Your task to perform on an android device: View the shopping cart on newegg.com. Add amazon basics triple a to the cart on newegg.com Image 0: 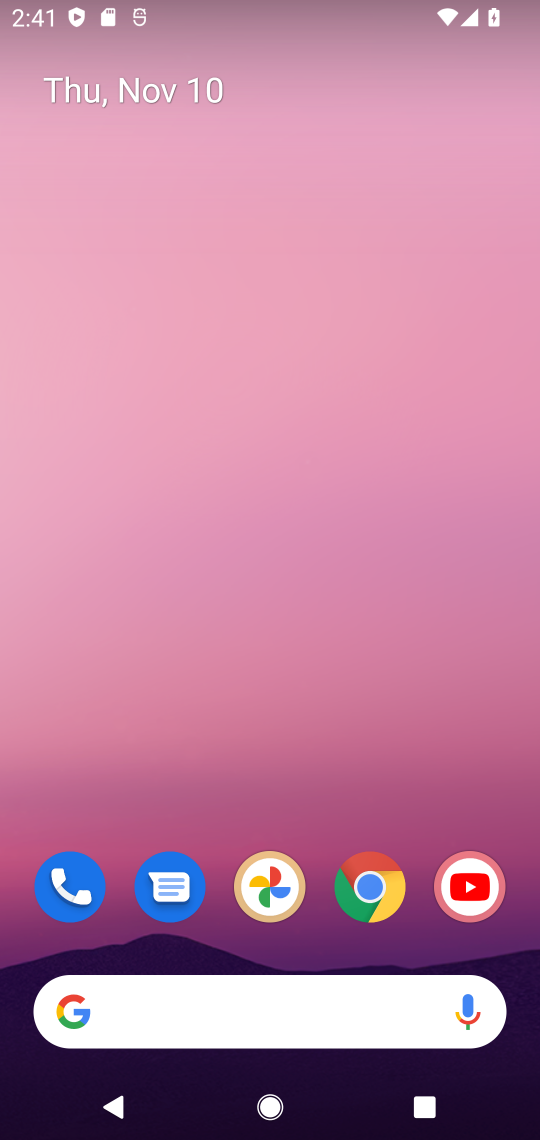
Step 0: drag from (314, 955) to (280, 90)
Your task to perform on an android device: View the shopping cart on newegg.com. Add amazon basics triple a to the cart on newegg.com Image 1: 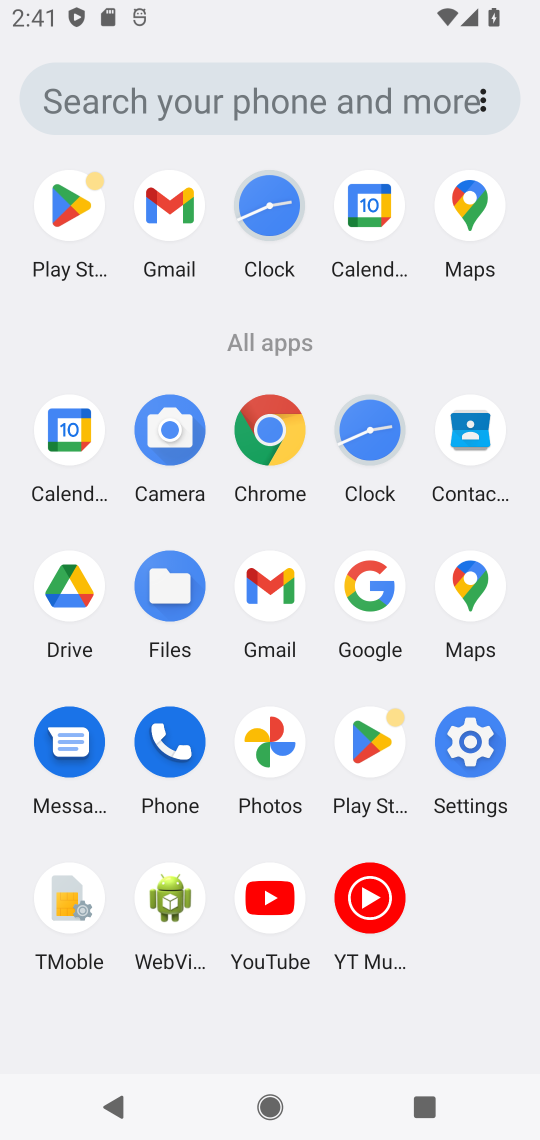
Step 1: click (276, 430)
Your task to perform on an android device: View the shopping cart on newegg.com. Add amazon basics triple a to the cart on newegg.com Image 2: 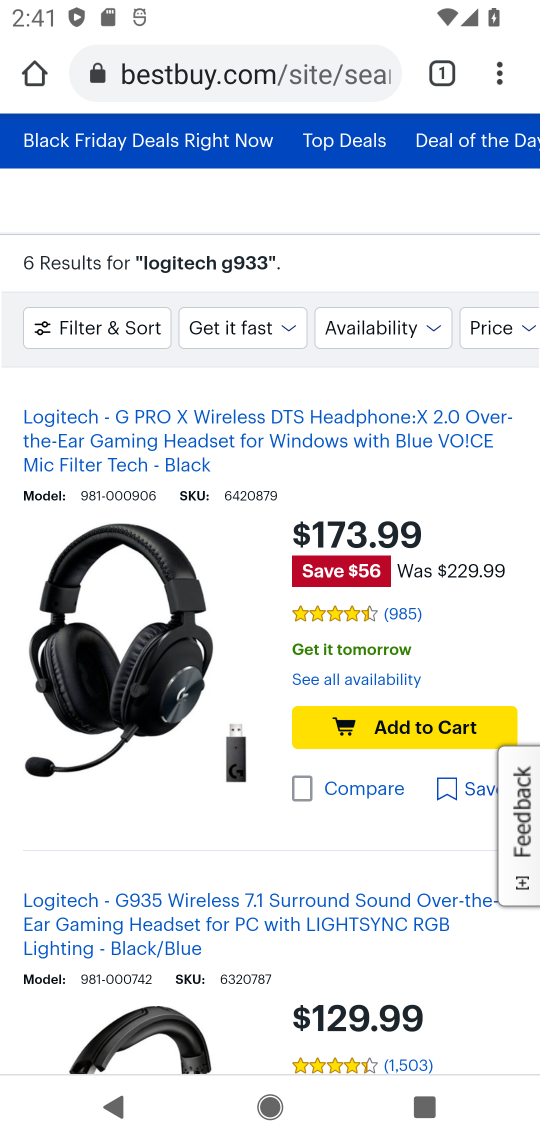
Step 2: click (232, 77)
Your task to perform on an android device: View the shopping cart on newegg.com. Add amazon basics triple a to the cart on newegg.com Image 3: 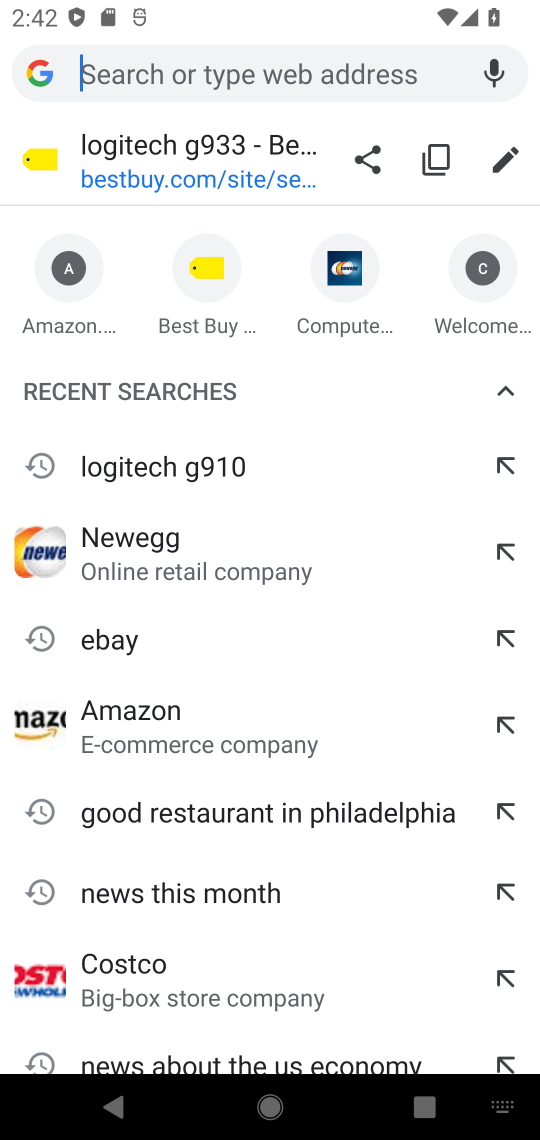
Step 3: type "newegg.com"
Your task to perform on an android device: View the shopping cart on newegg.com. Add amazon basics triple a to the cart on newegg.com Image 4: 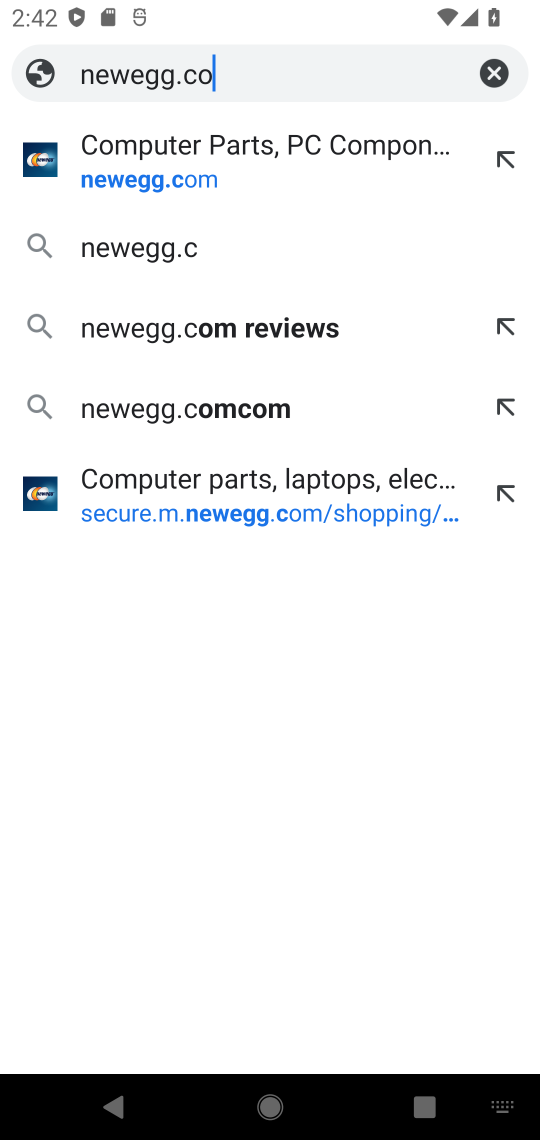
Step 4: press enter
Your task to perform on an android device: View the shopping cart on newegg.com. Add amazon basics triple a to the cart on newegg.com Image 5: 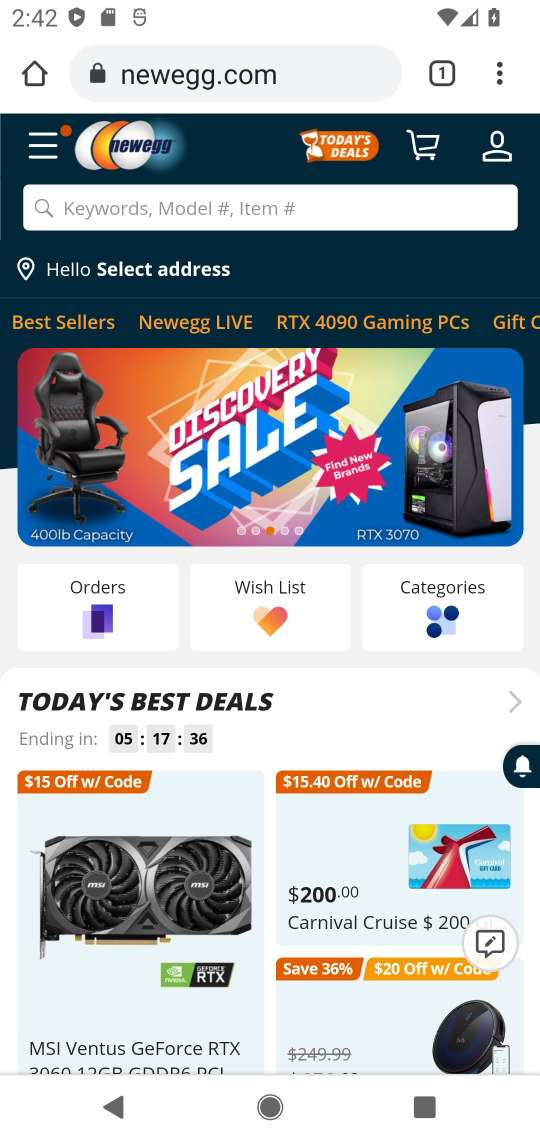
Step 5: click (441, 155)
Your task to perform on an android device: View the shopping cart on newegg.com. Add amazon basics triple a to the cart on newegg.com Image 6: 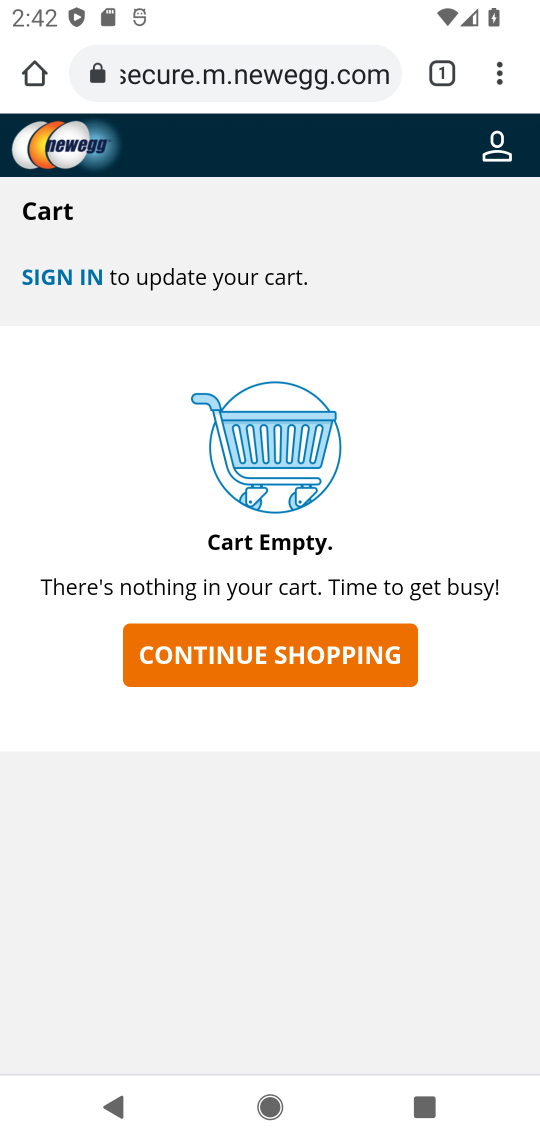
Step 6: click (336, 642)
Your task to perform on an android device: View the shopping cart on newegg.com. Add amazon basics triple a to the cart on newegg.com Image 7: 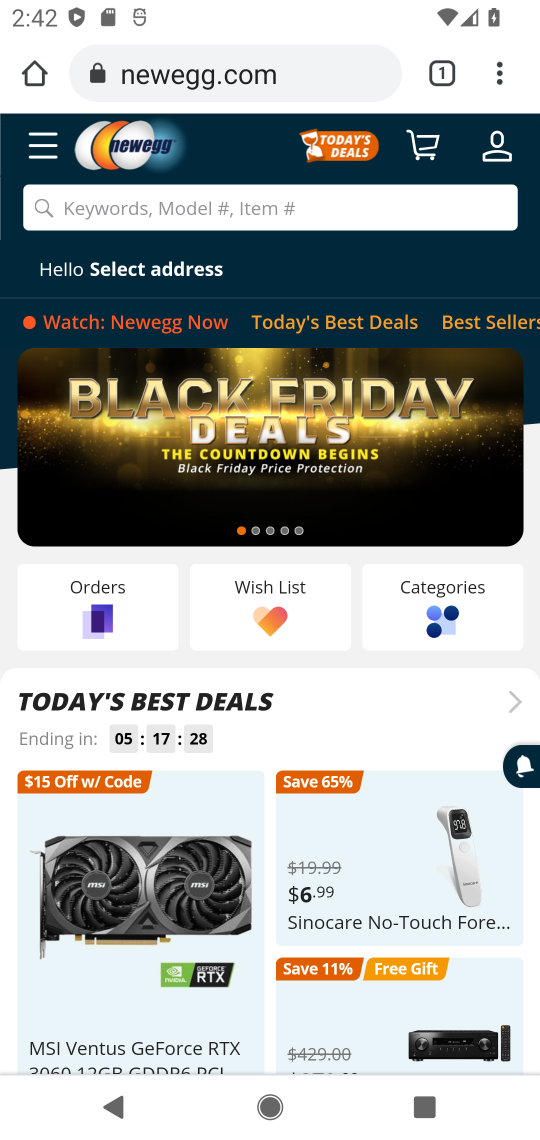
Step 7: click (258, 198)
Your task to perform on an android device: View the shopping cart on newegg.com. Add amazon basics triple a to the cart on newegg.com Image 8: 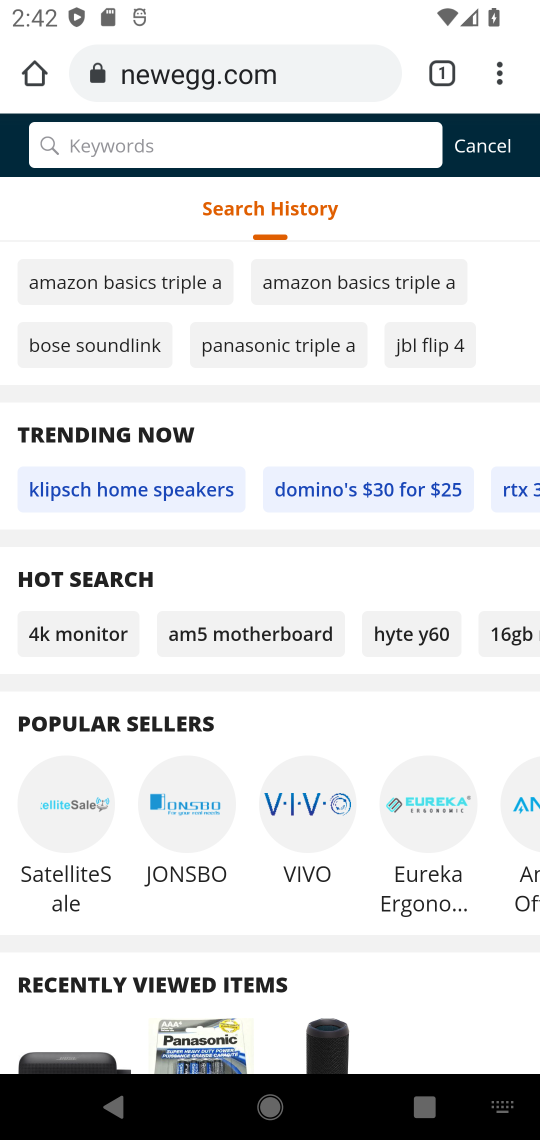
Step 8: type "amazon basics triple a"
Your task to perform on an android device: View the shopping cart on newegg.com. Add amazon basics triple a to the cart on newegg.com Image 9: 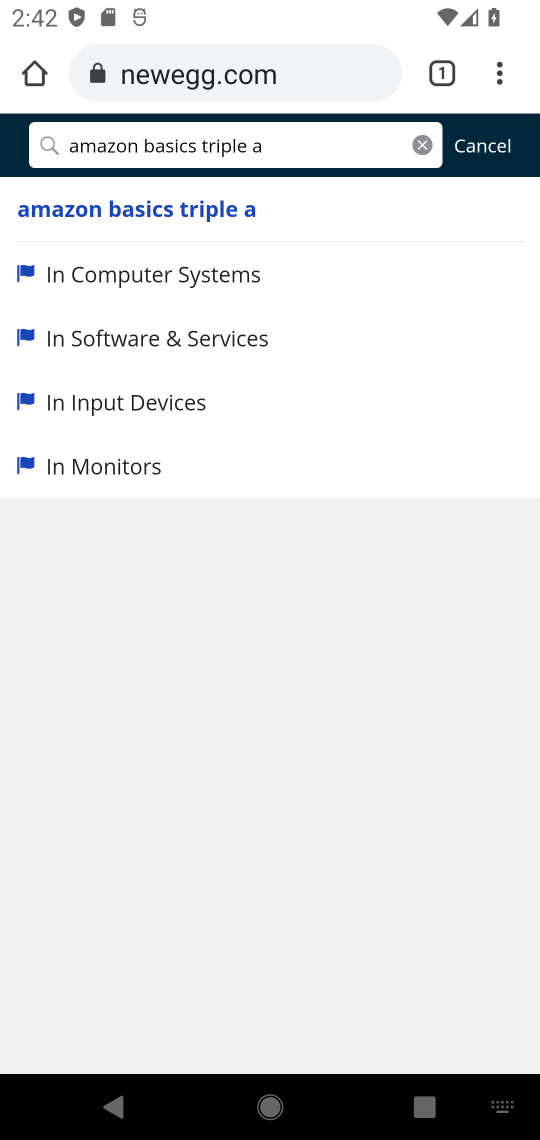
Step 9: press enter
Your task to perform on an android device: View the shopping cart on newegg.com. Add amazon basics triple a to the cart on newegg.com Image 10: 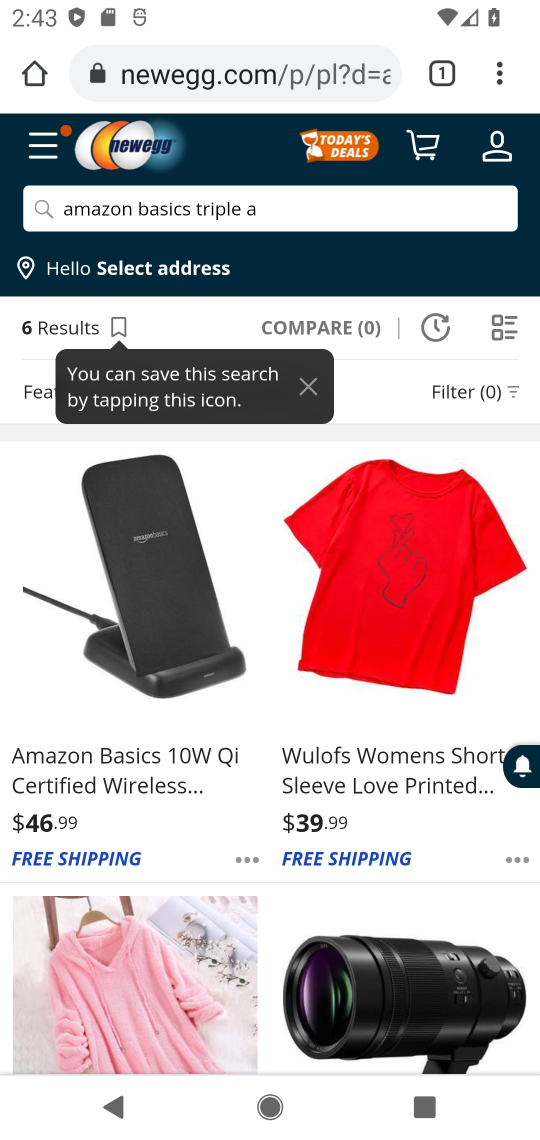
Step 10: task complete